Your task to perform on an android device: Open Google Chrome Image 0: 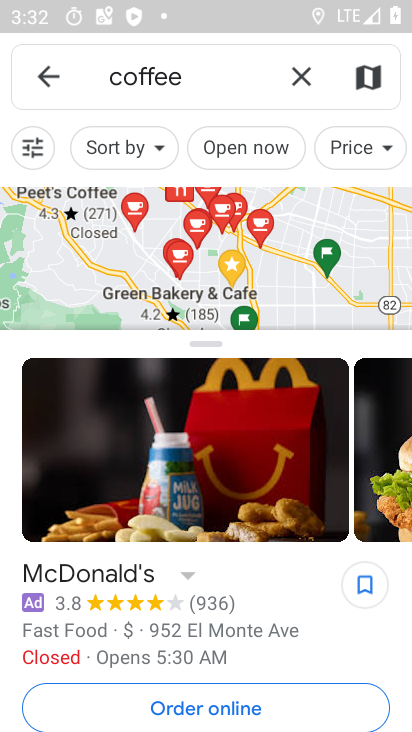
Step 0: press home button
Your task to perform on an android device: Open Google Chrome Image 1: 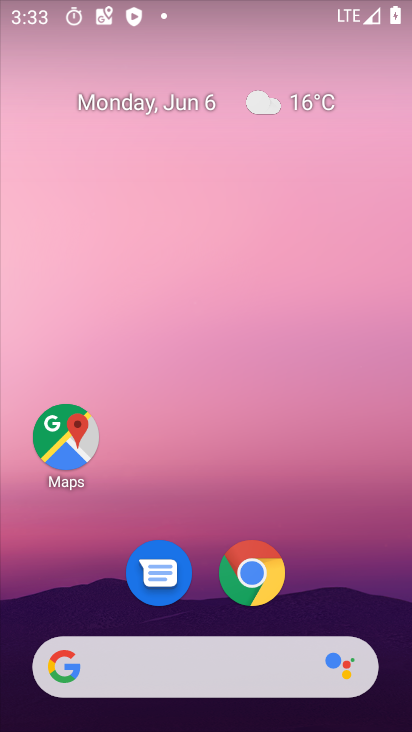
Step 1: drag from (361, 577) to (383, 204)
Your task to perform on an android device: Open Google Chrome Image 2: 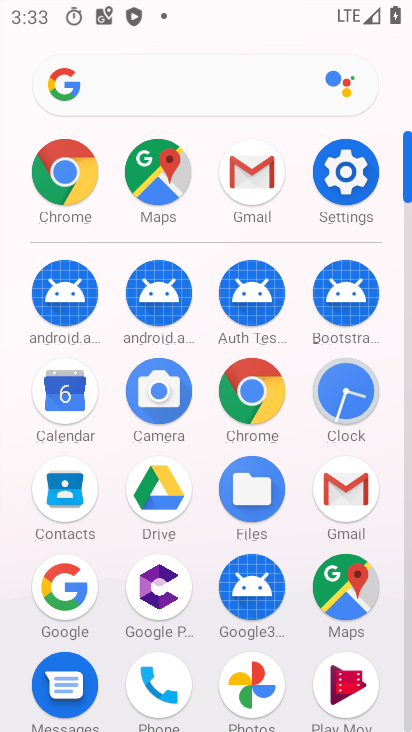
Step 2: click (265, 399)
Your task to perform on an android device: Open Google Chrome Image 3: 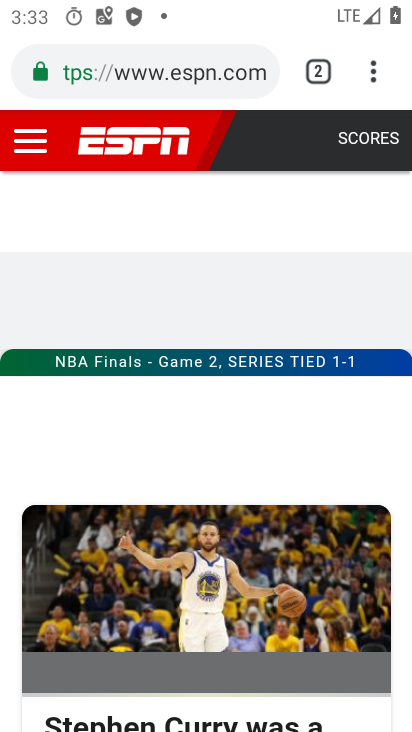
Step 3: task complete